Your task to perform on an android device: Search for seafood restaurants on Google Maps Image 0: 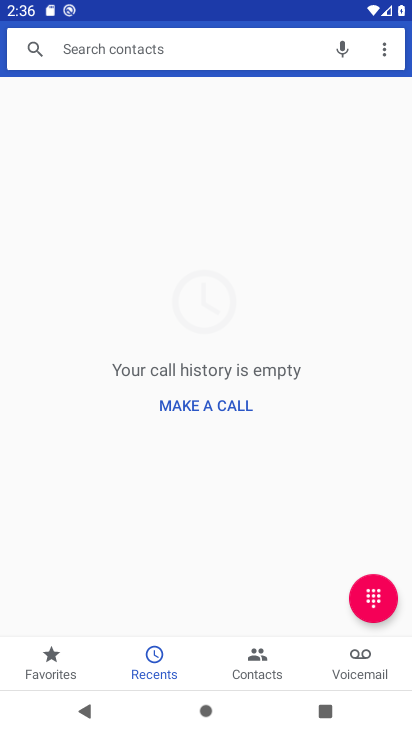
Step 0: press home button
Your task to perform on an android device: Search for seafood restaurants on Google Maps Image 1: 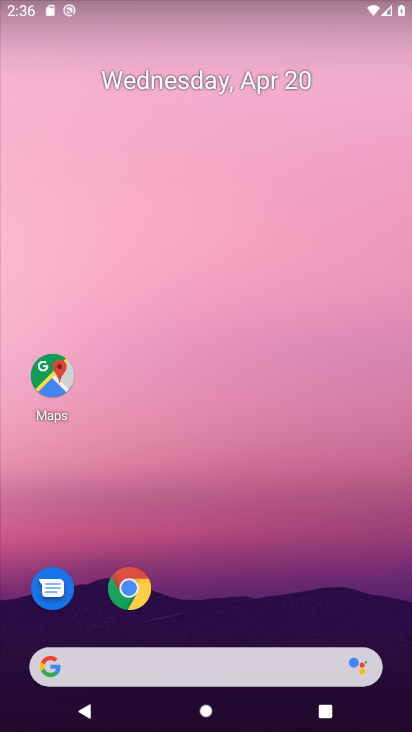
Step 1: drag from (325, 593) to (313, 135)
Your task to perform on an android device: Search for seafood restaurants on Google Maps Image 2: 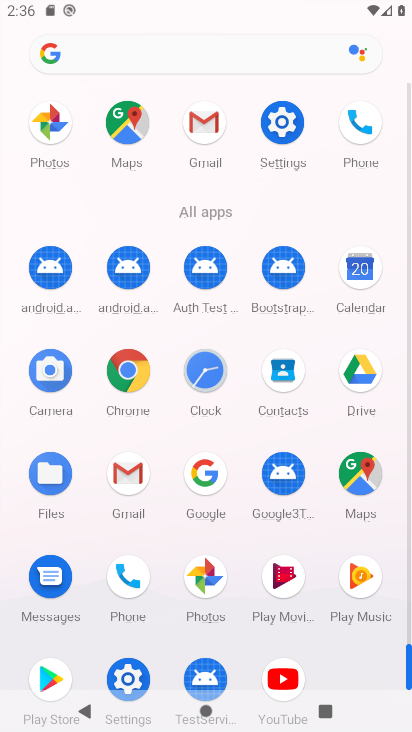
Step 2: click (344, 467)
Your task to perform on an android device: Search for seafood restaurants on Google Maps Image 3: 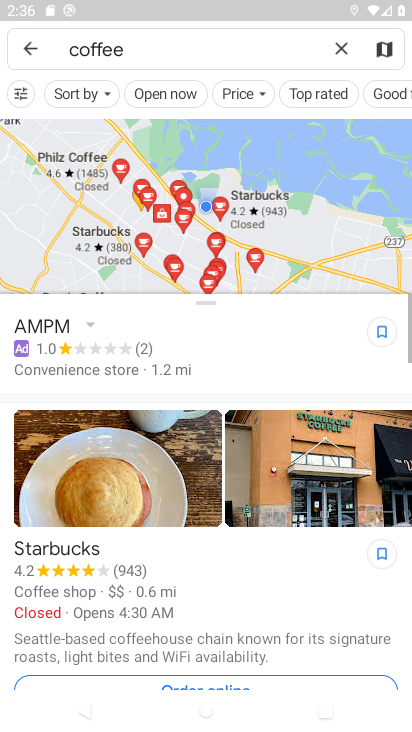
Step 3: click (207, 46)
Your task to perform on an android device: Search for seafood restaurants on Google Maps Image 4: 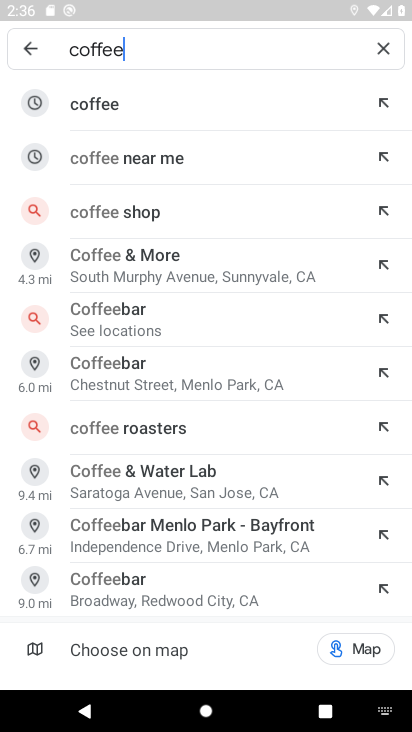
Step 4: type "seafood restaurants"
Your task to perform on an android device: Search for seafood restaurants on Google Maps Image 5: 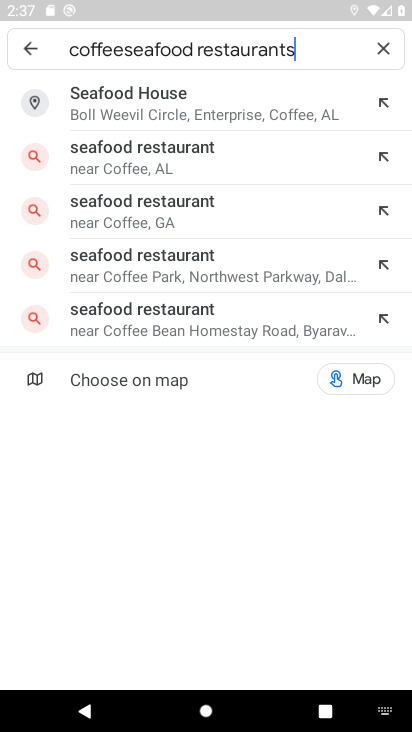
Step 5: click (126, 46)
Your task to perform on an android device: Search for seafood restaurants on Google Maps Image 6: 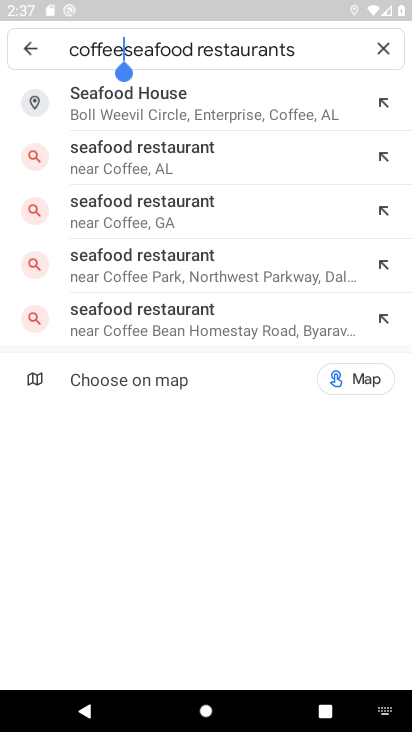
Step 6: click (143, 158)
Your task to perform on an android device: Search for seafood restaurants on Google Maps Image 7: 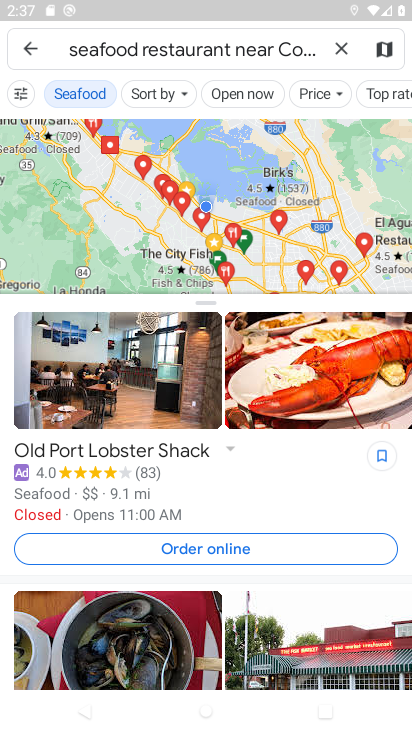
Step 7: task complete